Your task to perform on an android device: Open calendar and show me the third week of next month Image 0: 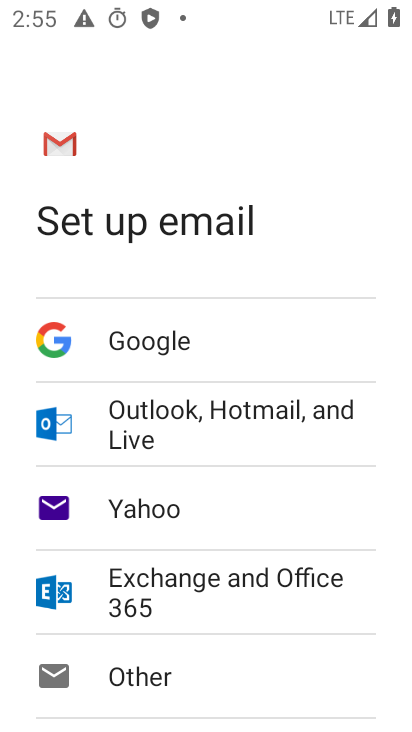
Step 0: press home button
Your task to perform on an android device: Open calendar and show me the third week of next month Image 1: 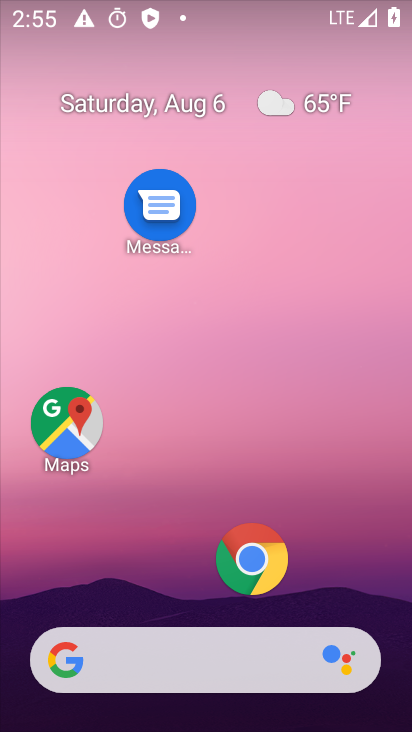
Step 1: drag from (193, 386) to (74, 21)
Your task to perform on an android device: Open calendar and show me the third week of next month Image 2: 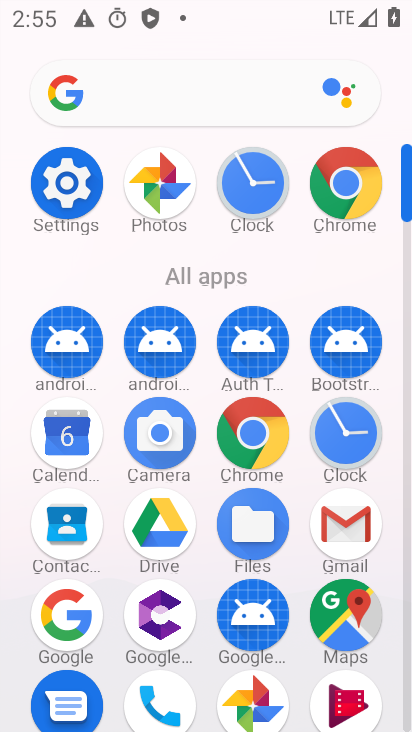
Step 2: click (65, 439)
Your task to perform on an android device: Open calendar and show me the third week of next month Image 3: 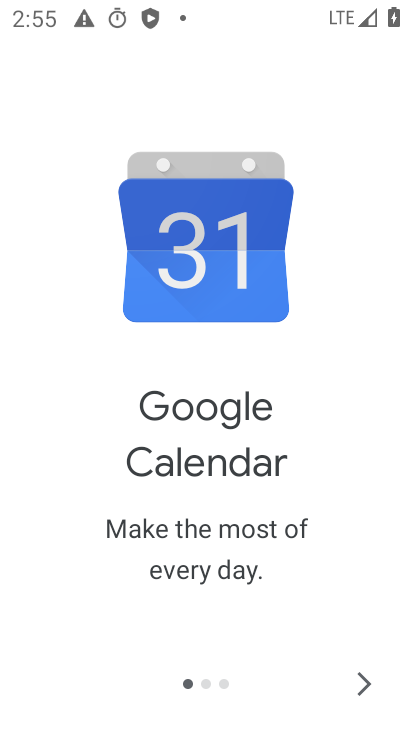
Step 3: click (356, 679)
Your task to perform on an android device: Open calendar and show me the third week of next month Image 4: 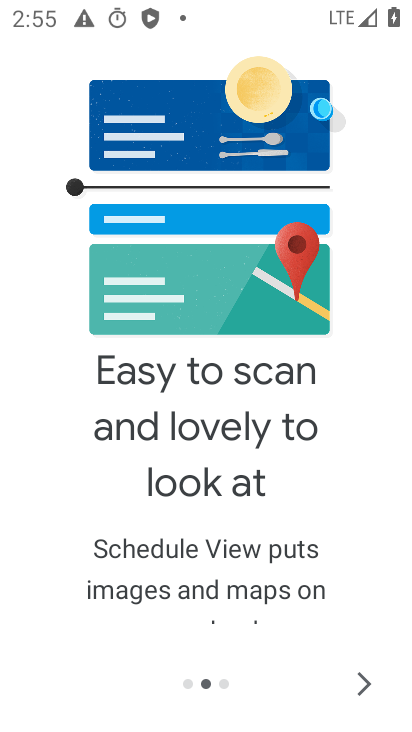
Step 4: click (356, 679)
Your task to perform on an android device: Open calendar and show me the third week of next month Image 5: 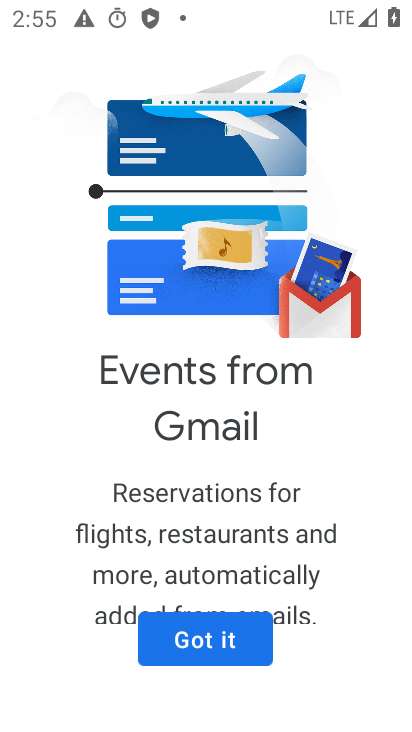
Step 5: click (179, 644)
Your task to perform on an android device: Open calendar and show me the third week of next month Image 6: 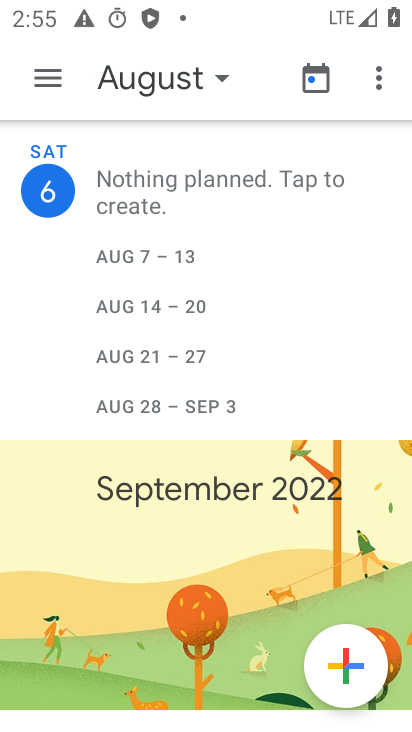
Step 6: click (138, 81)
Your task to perform on an android device: Open calendar and show me the third week of next month Image 7: 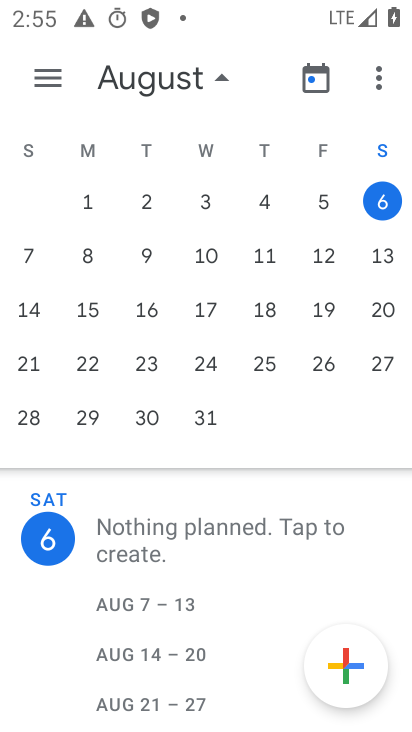
Step 7: drag from (374, 274) to (6, 360)
Your task to perform on an android device: Open calendar and show me the third week of next month Image 8: 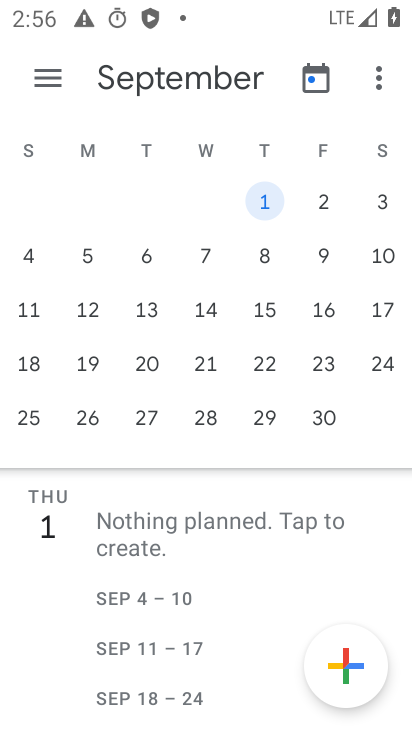
Step 8: click (25, 307)
Your task to perform on an android device: Open calendar and show me the third week of next month Image 9: 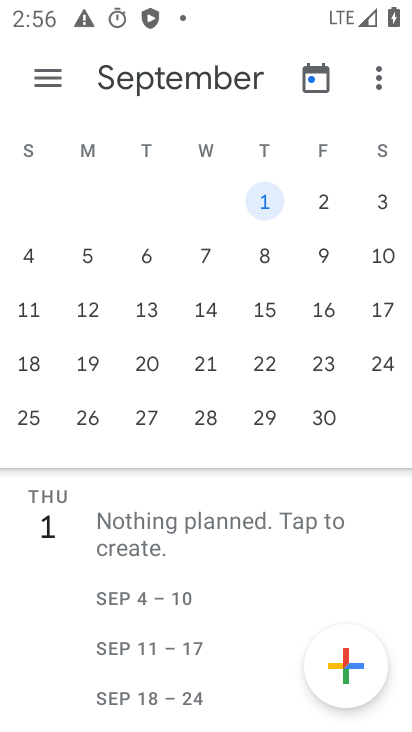
Step 9: click (25, 307)
Your task to perform on an android device: Open calendar and show me the third week of next month Image 10: 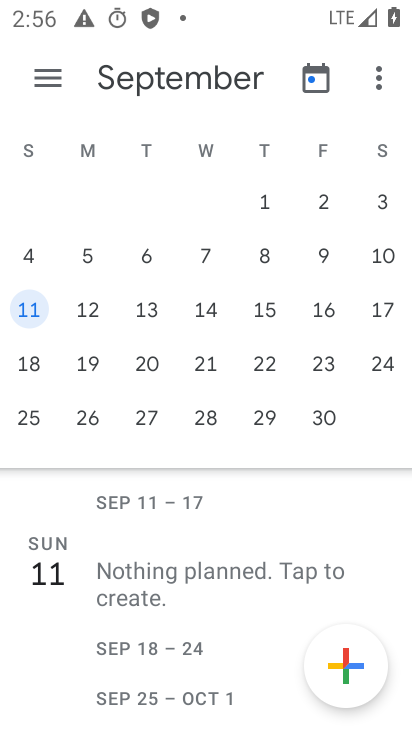
Step 10: click (50, 75)
Your task to perform on an android device: Open calendar and show me the third week of next month Image 11: 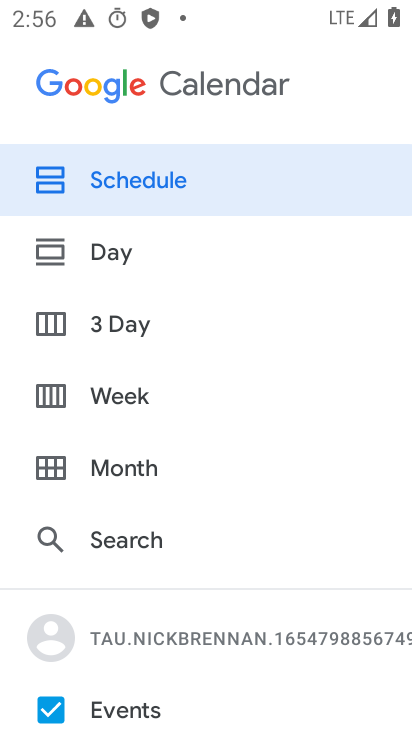
Step 11: click (103, 394)
Your task to perform on an android device: Open calendar and show me the third week of next month Image 12: 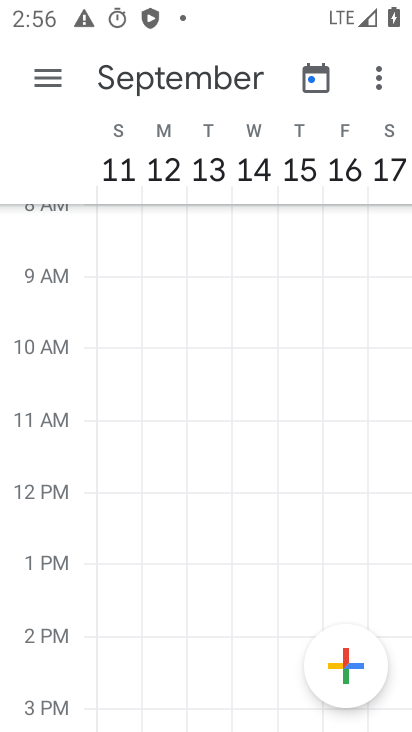
Step 12: task complete